Your task to perform on an android device: Open Maps and search for coffee Image 0: 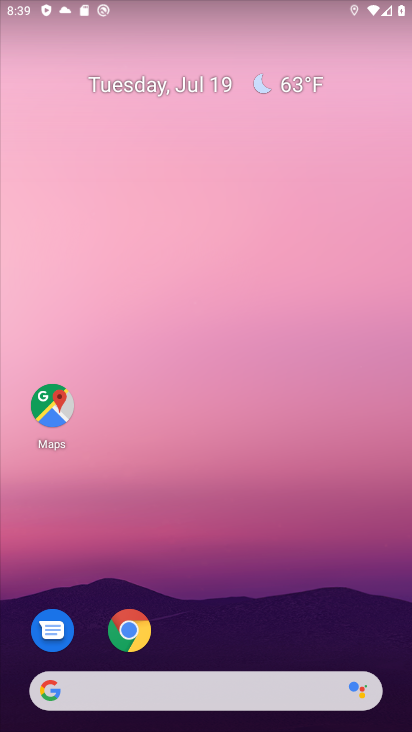
Step 0: click (53, 407)
Your task to perform on an android device: Open Maps and search for coffee Image 1: 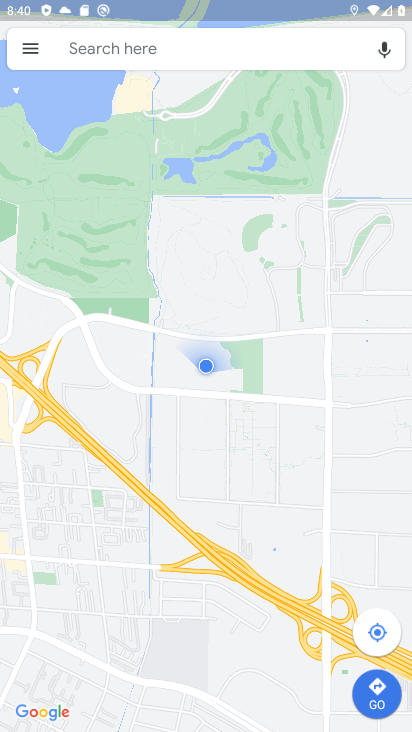
Step 1: click (207, 49)
Your task to perform on an android device: Open Maps and search for coffee Image 2: 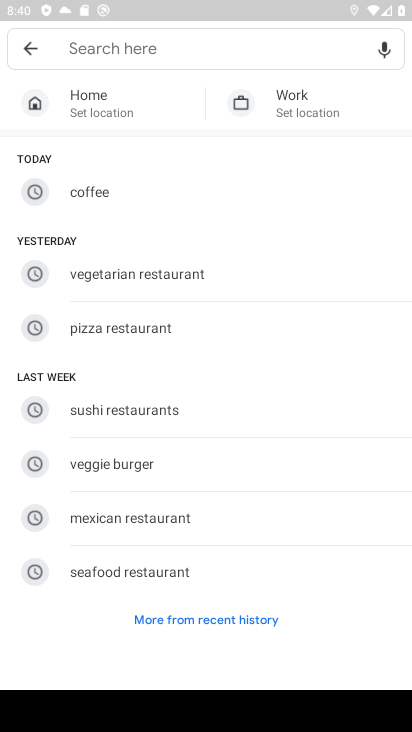
Step 2: type "coffee"
Your task to perform on an android device: Open Maps and search for coffee Image 3: 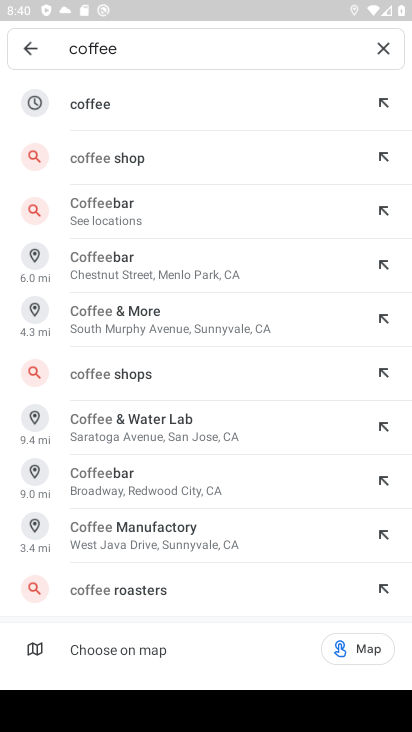
Step 3: click (96, 103)
Your task to perform on an android device: Open Maps and search for coffee Image 4: 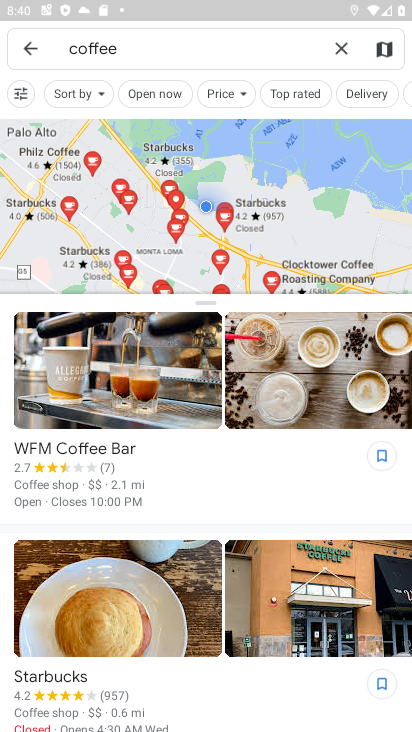
Step 4: task complete